Your task to perform on an android device: change the clock display to analog Image 0: 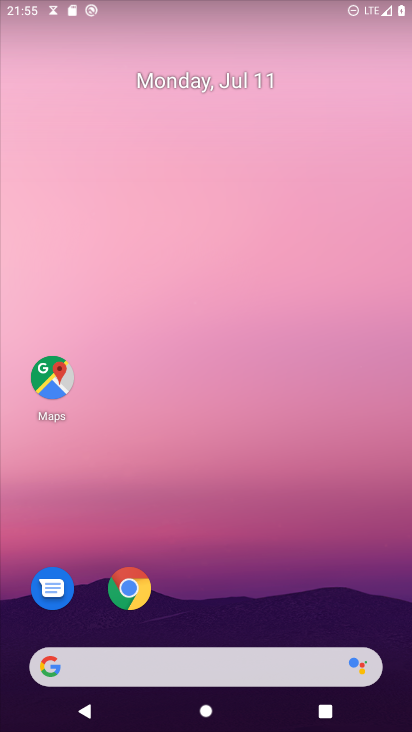
Step 0: press home button
Your task to perform on an android device: change the clock display to analog Image 1: 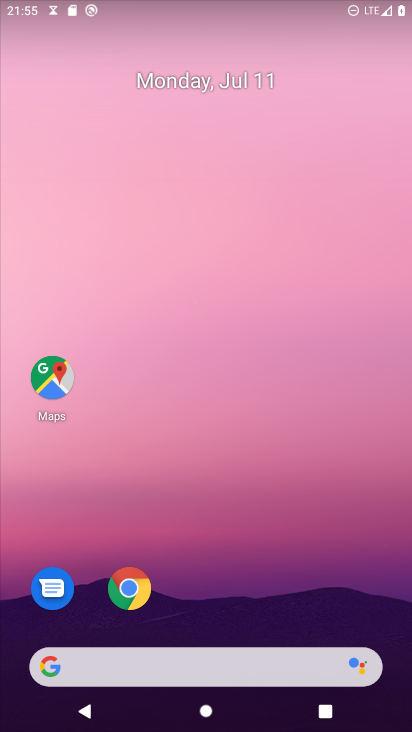
Step 1: drag from (219, 615) to (195, 94)
Your task to perform on an android device: change the clock display to analog Image 2: 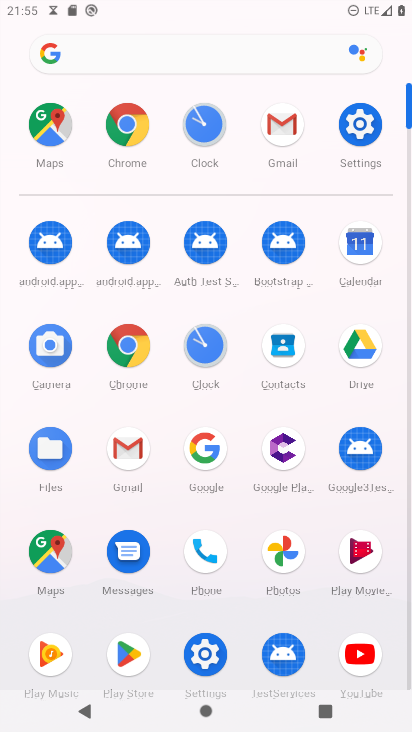
Step 2: click (201, 137)
Your task to perform on an android device: change the clock display to analog Image 3: 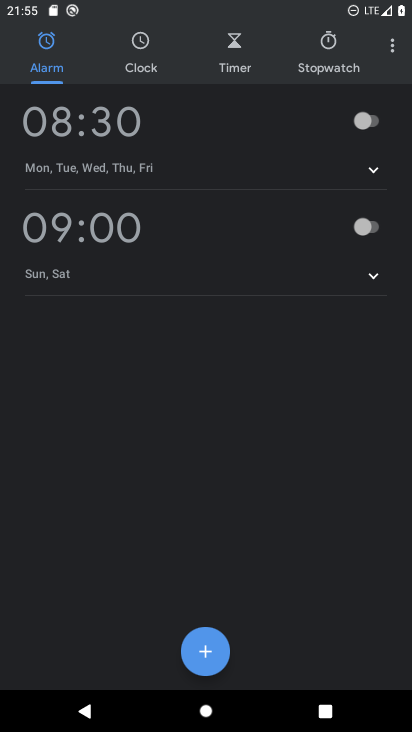
Step 3: click (386, 45)
Your task to perform on an android device: change the clock display to analog Image 4: 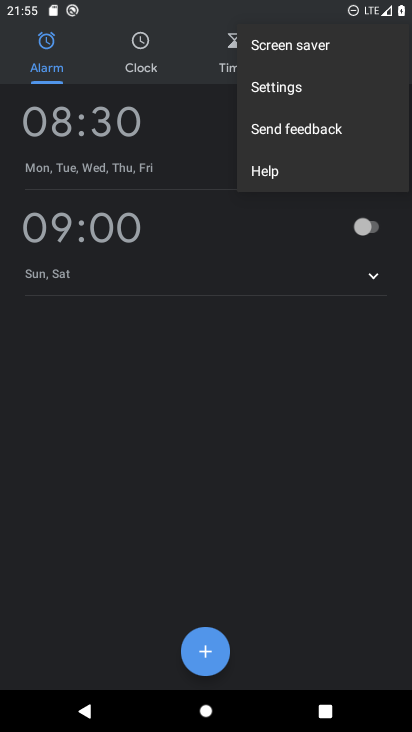
Step 4: click (268, 99)
Your task to perform on an android device: change the clock display to analog Image 5: 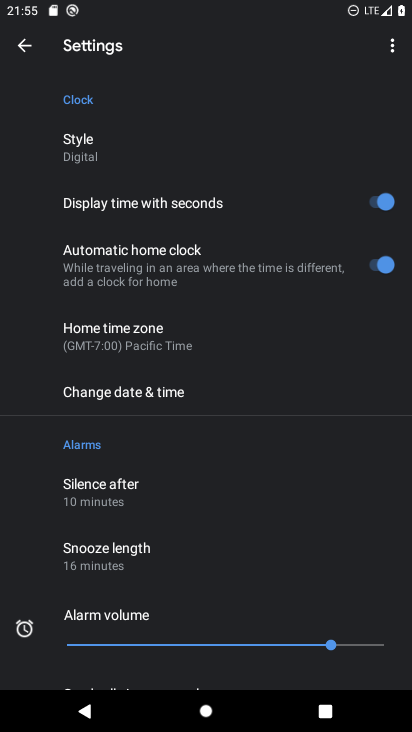
Step 5: click (76, 147)
Your task to perform on an android device: change the clock display to analog Image 6: 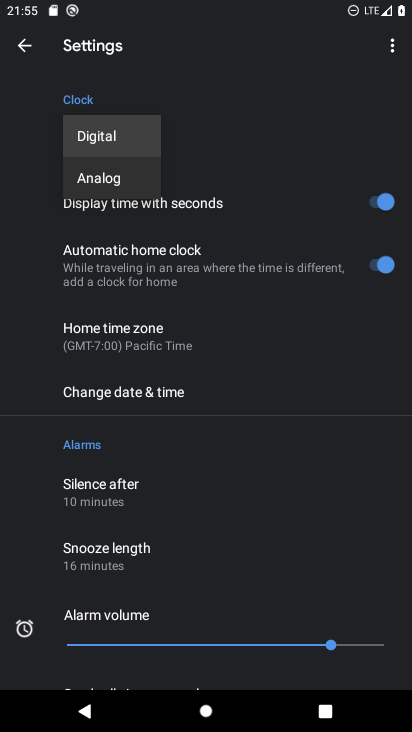
Step 6: click (82, 179)
Your task to perform on an android device: change the clock display to analog Image 7: 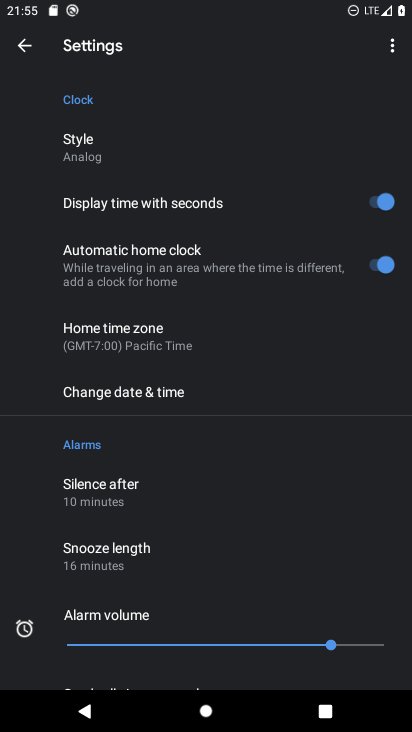
Step 7: task complete